Your task to perform on an android device: Go to CNN.com Image 0: 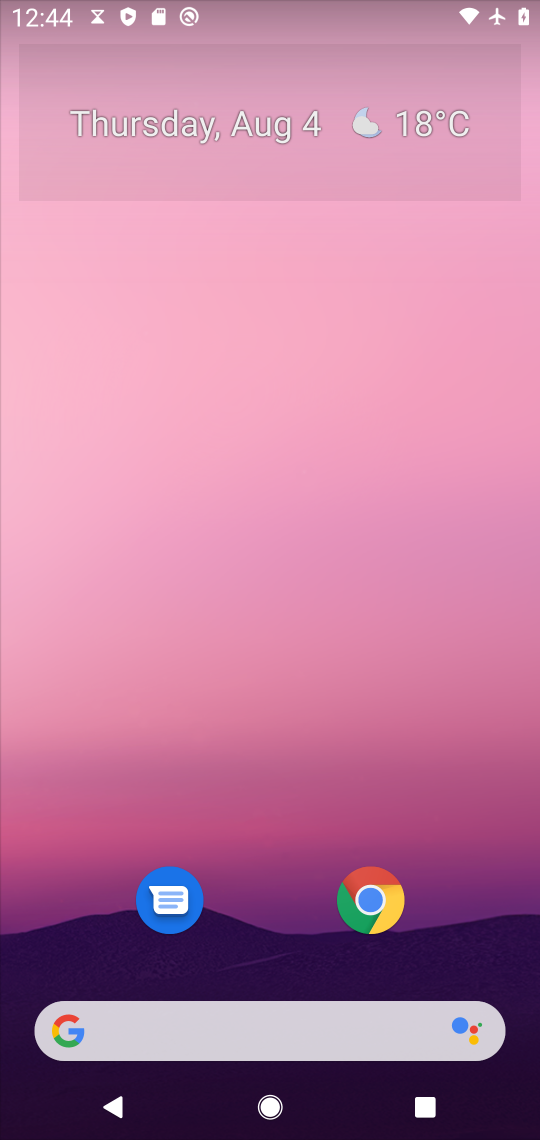
Step 0: click (62, 1024)
Your task to perform on an android device: Go to CNN.com Image 1: 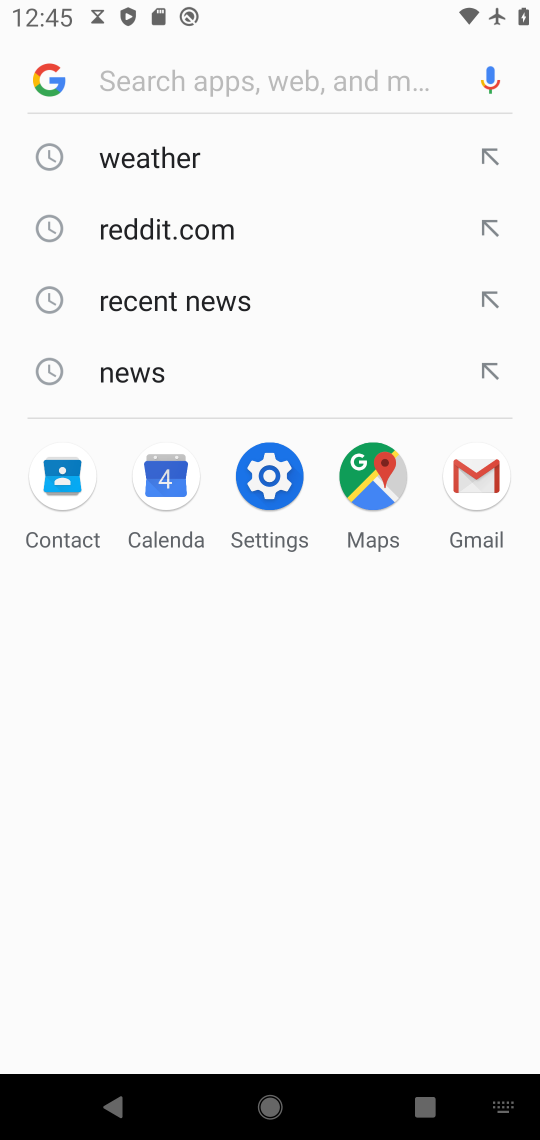
Step 1: type " CNN.com"
Your task to perform on an android device: Go to CNN.com Image 2: 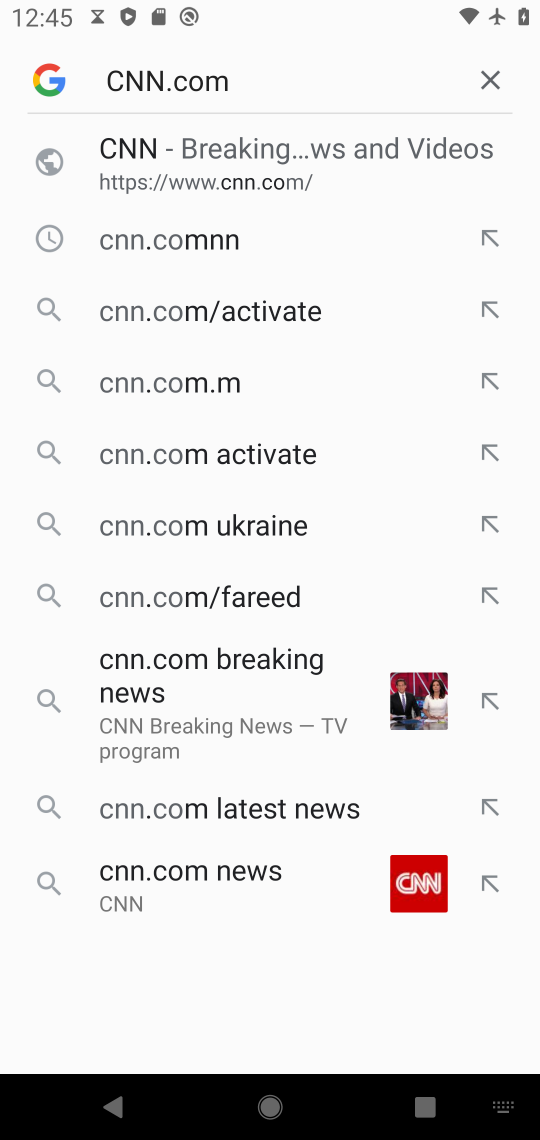
Step 2: press enter
Your task to perform on an android device: Go to CNN.com Image 3: 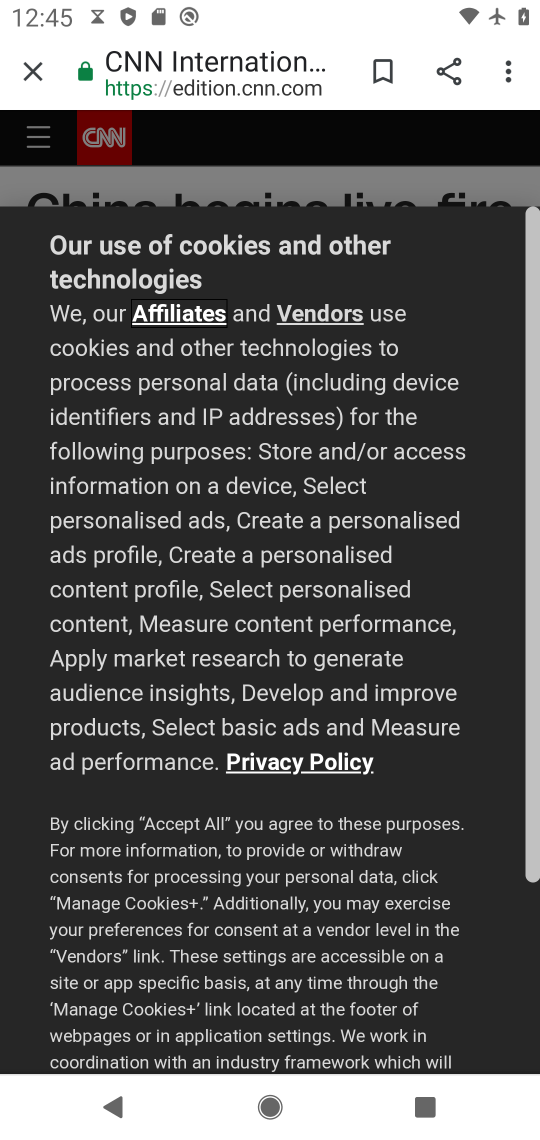
Step 3: task complete